Your task to perform on an android device: allow cookies in the chrome app Image 0: 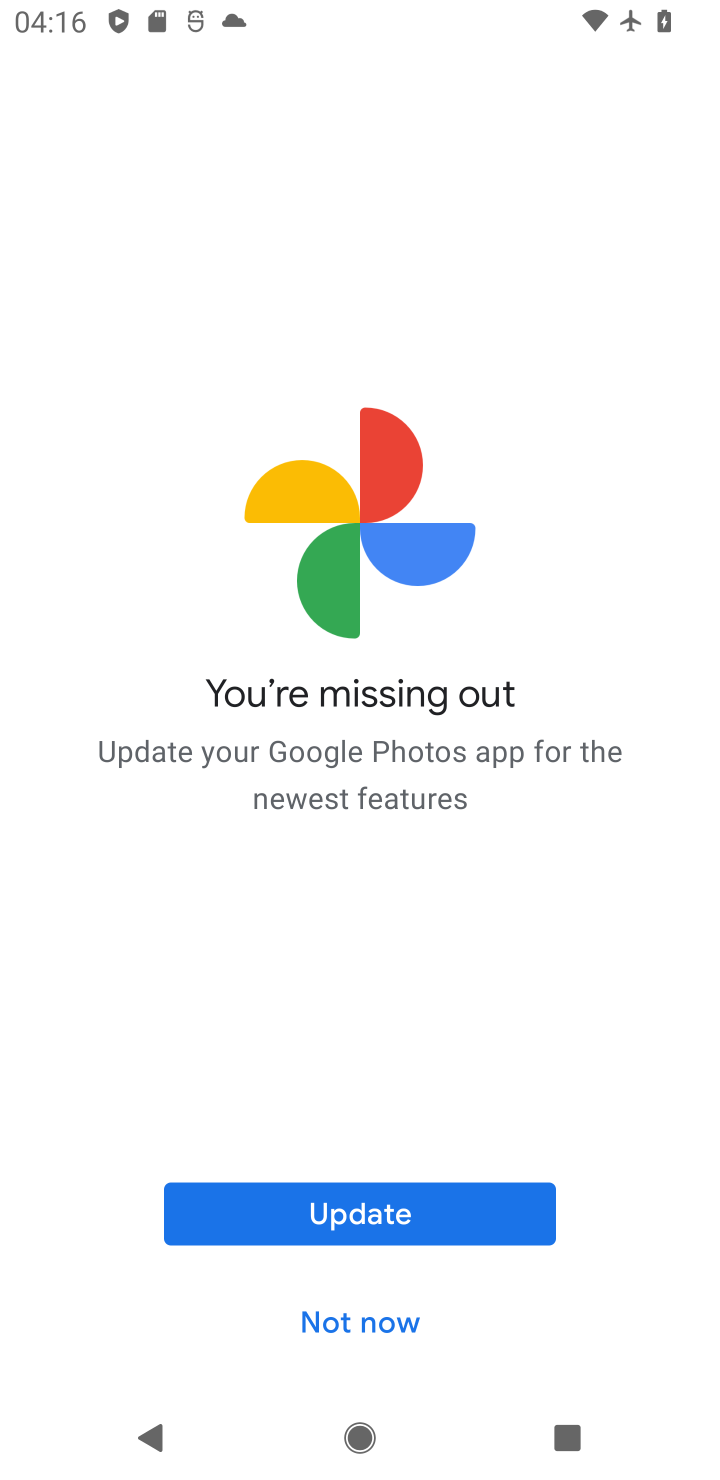
Step 0: press home button
Your task to perform on an android device: allow cookies in the chrome app Image 1: 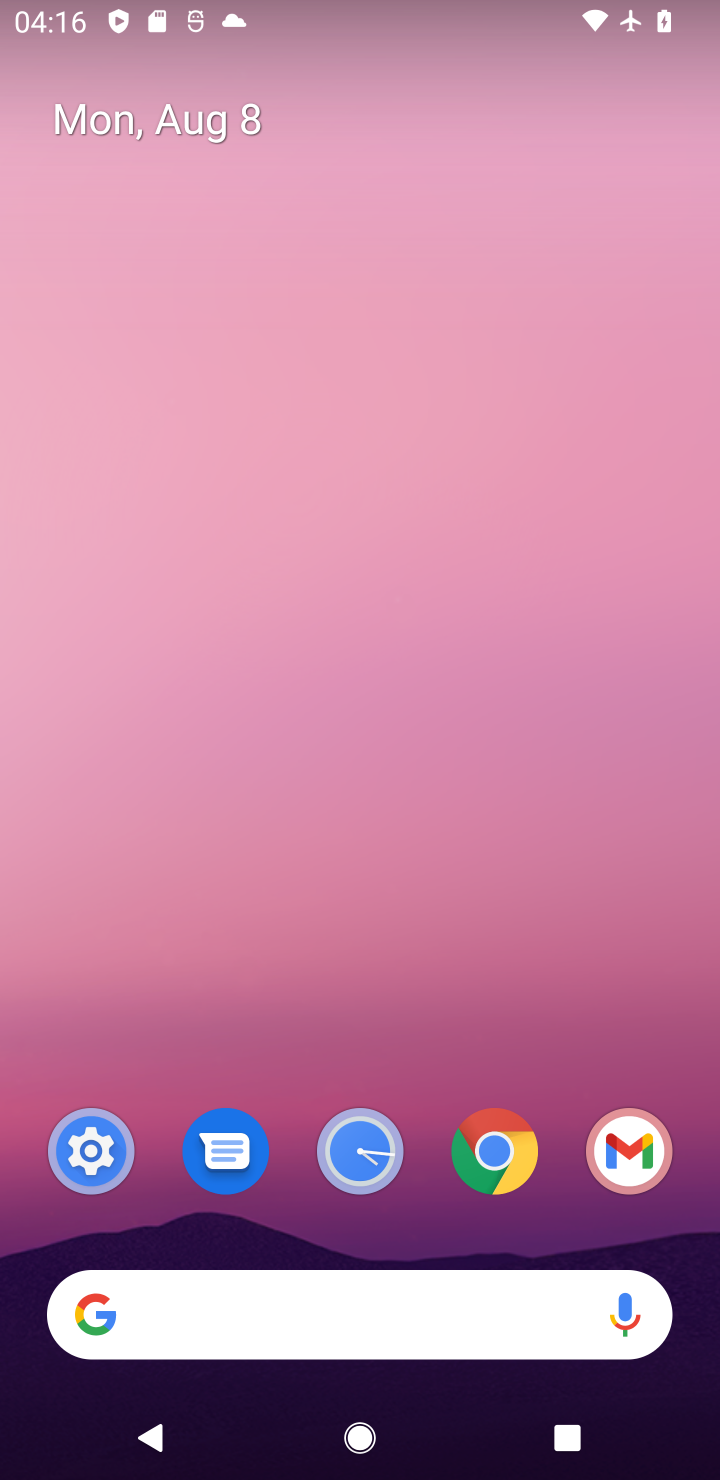
Step 1: click (517, 1166)
Your task to perform on an android device: allow cookies in the chrome app Image 2: 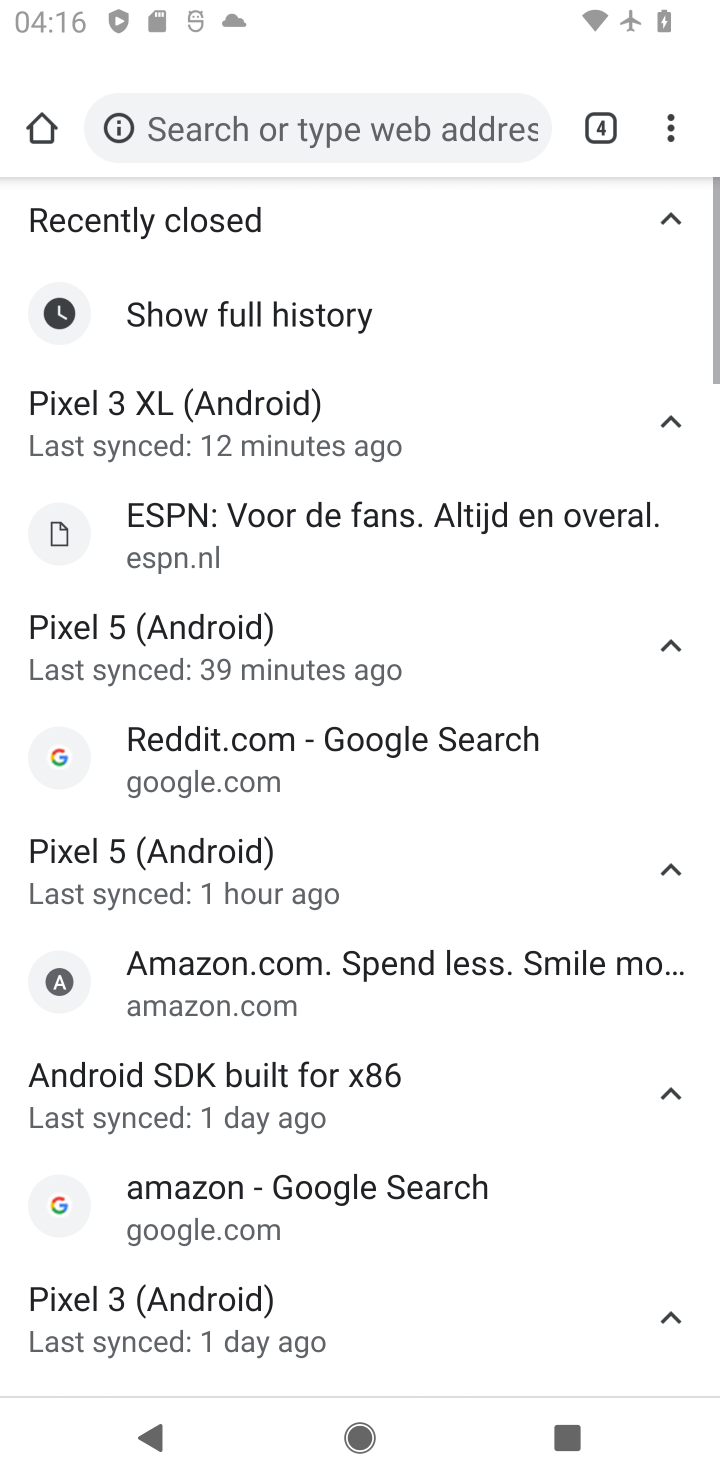
Step 2: click (696, 120)
Your task to perform on an android device: allow cookies in the chrome app Image 3: 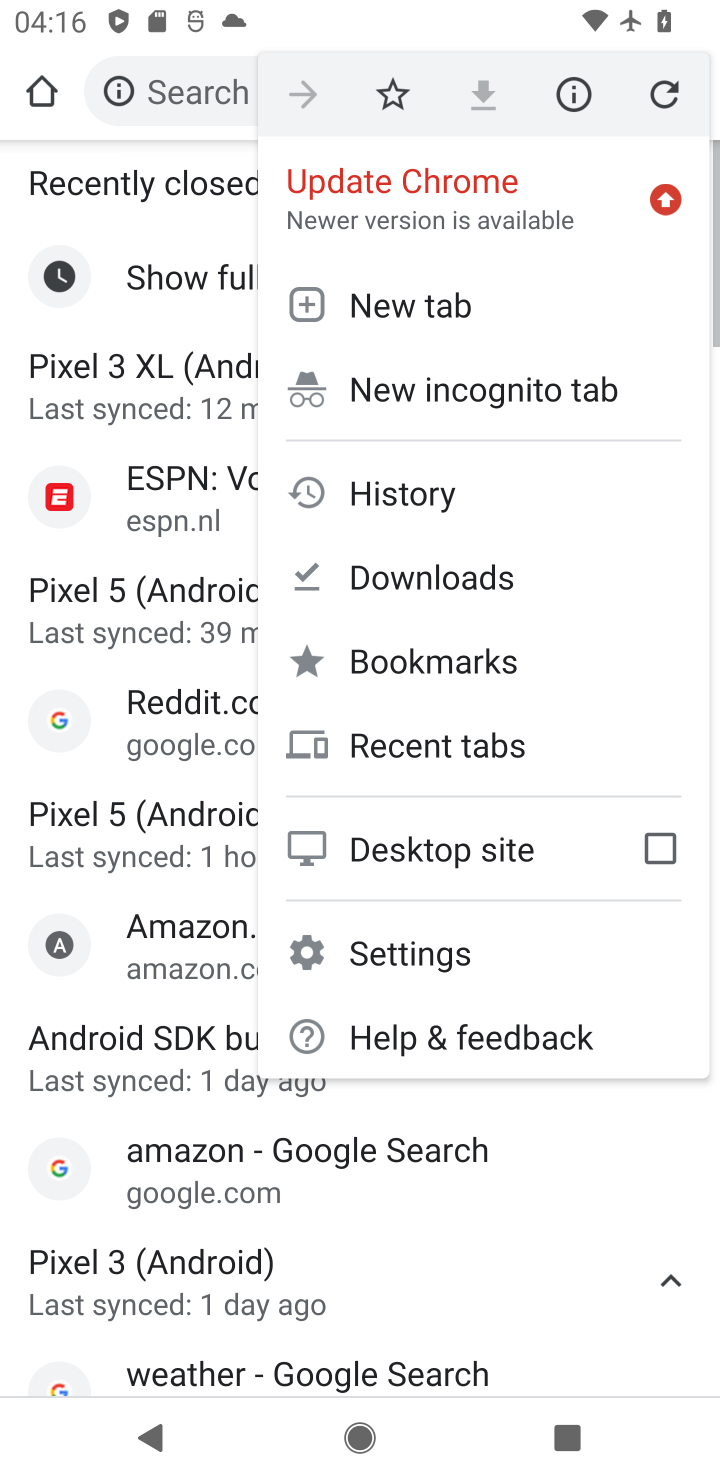
Step 3: click (412, 933)
Your task to perform on an android device: allow cookies in the chrome app Image 4: 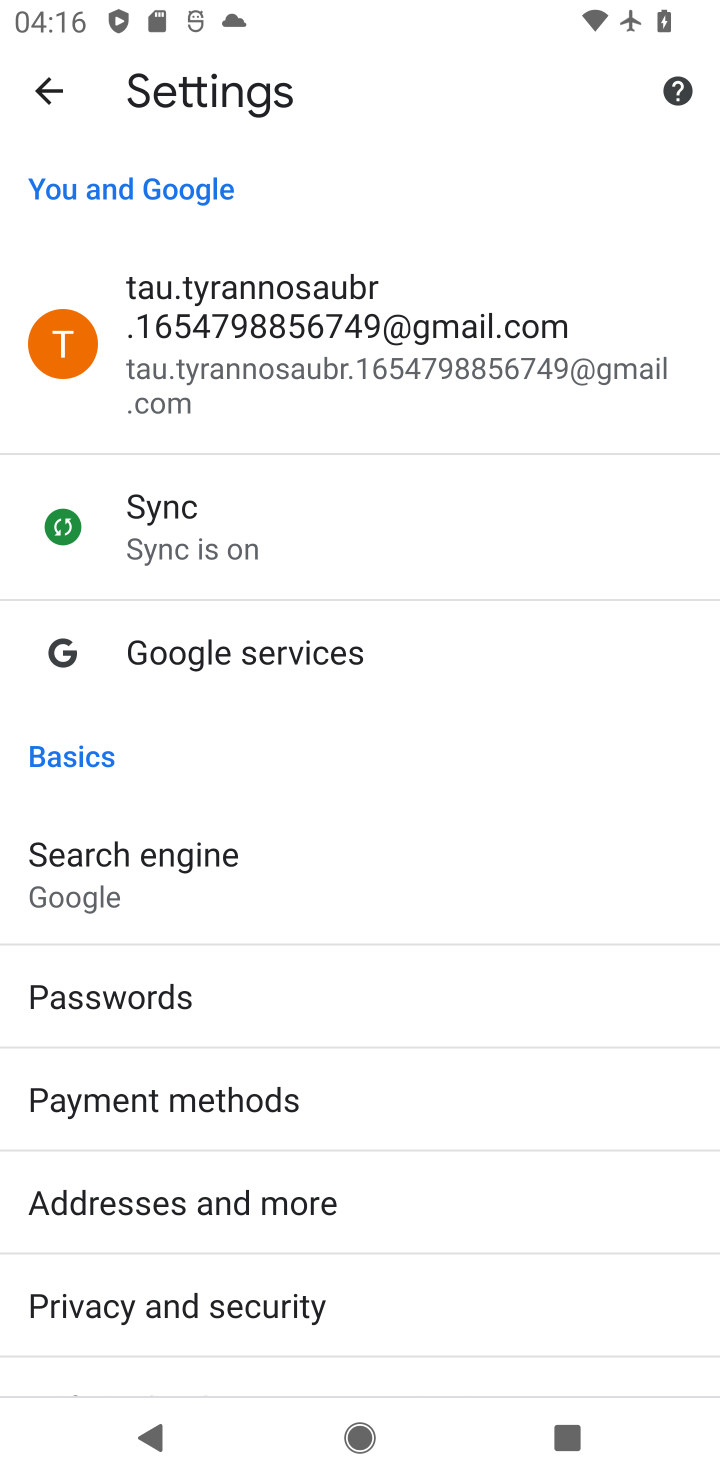
Step 4: drag from (268, 1170) to (268, 484)
Your task to perform on an android device: allow cookies in the chrome app Image 5: 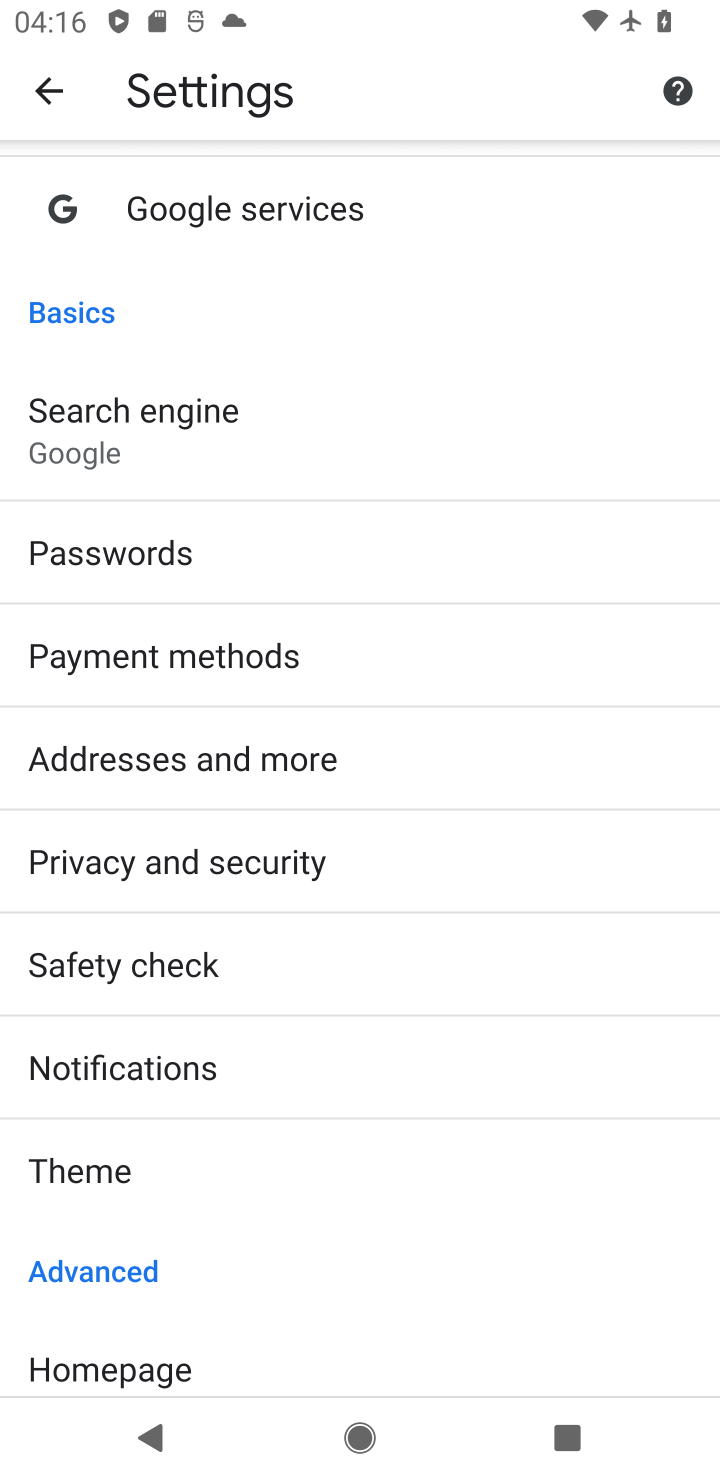
Step 5: drag from (256, 995) to (282, 376)
Your task to perform on an android device: allow cookies in the chrome app Image 6: 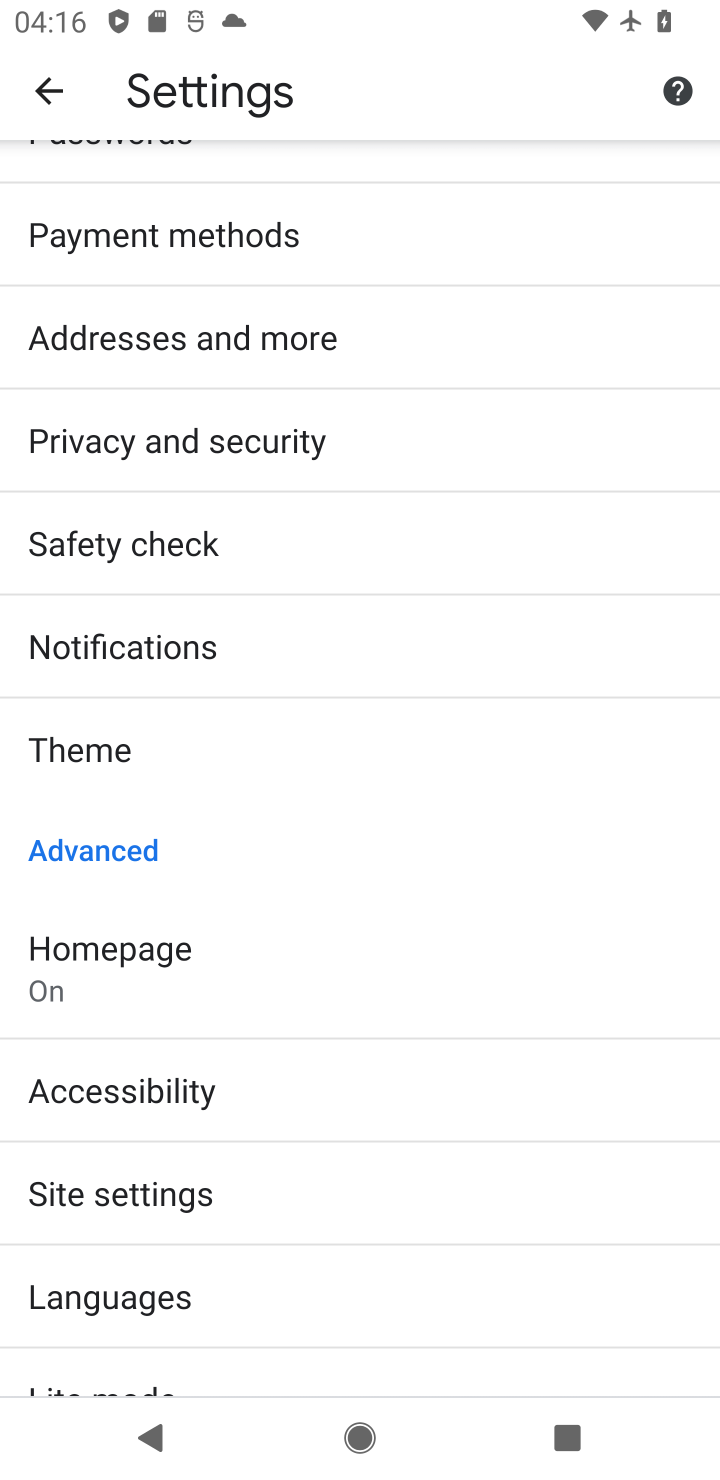
Step 6: click (139, 1201)
Your task to perform on an android device: allow cookies in the chrome app Image 7: 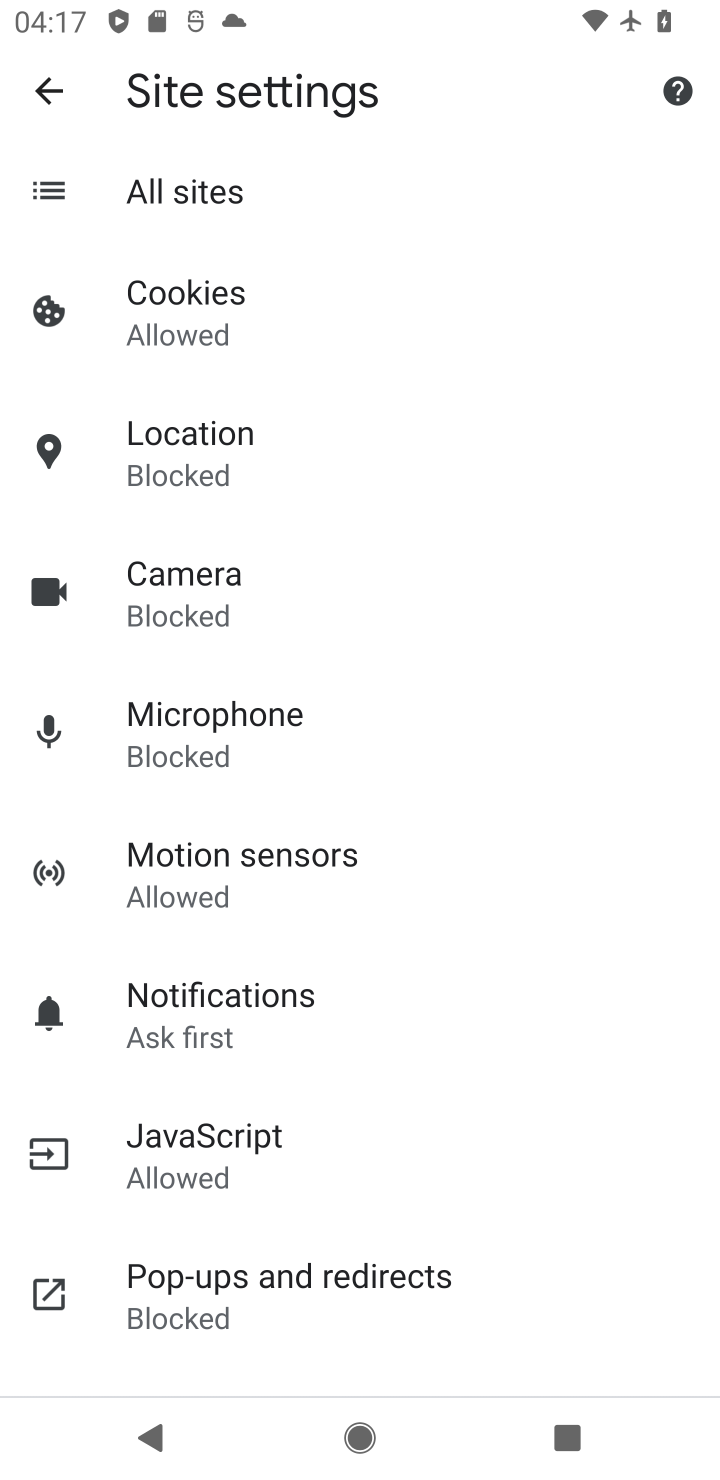
Step 7: click (241, 286)
Your task to perform on an android device: allow cookies in the chrome app Image 8: 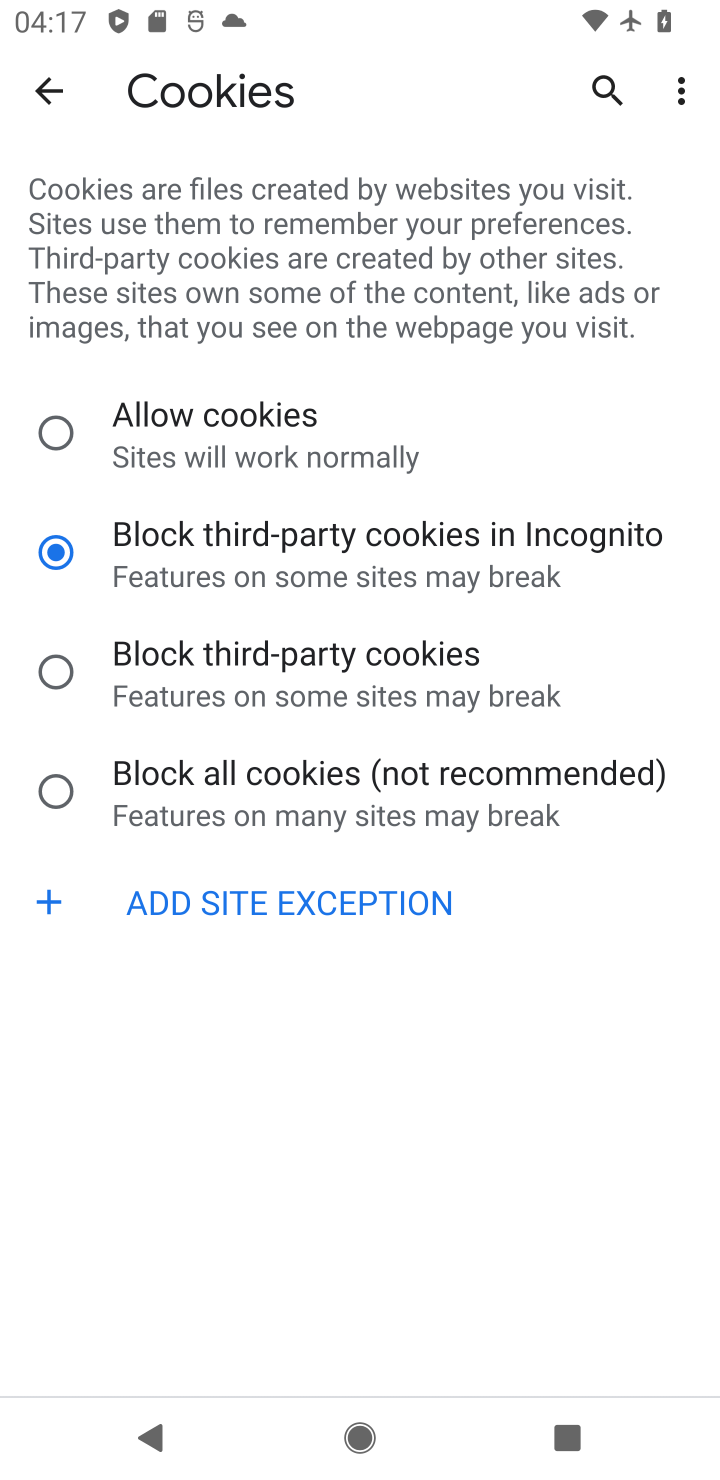
Step 8: click (193, 423)
Your task to perform on an android device: allow cookies in the chrome app Image 9: 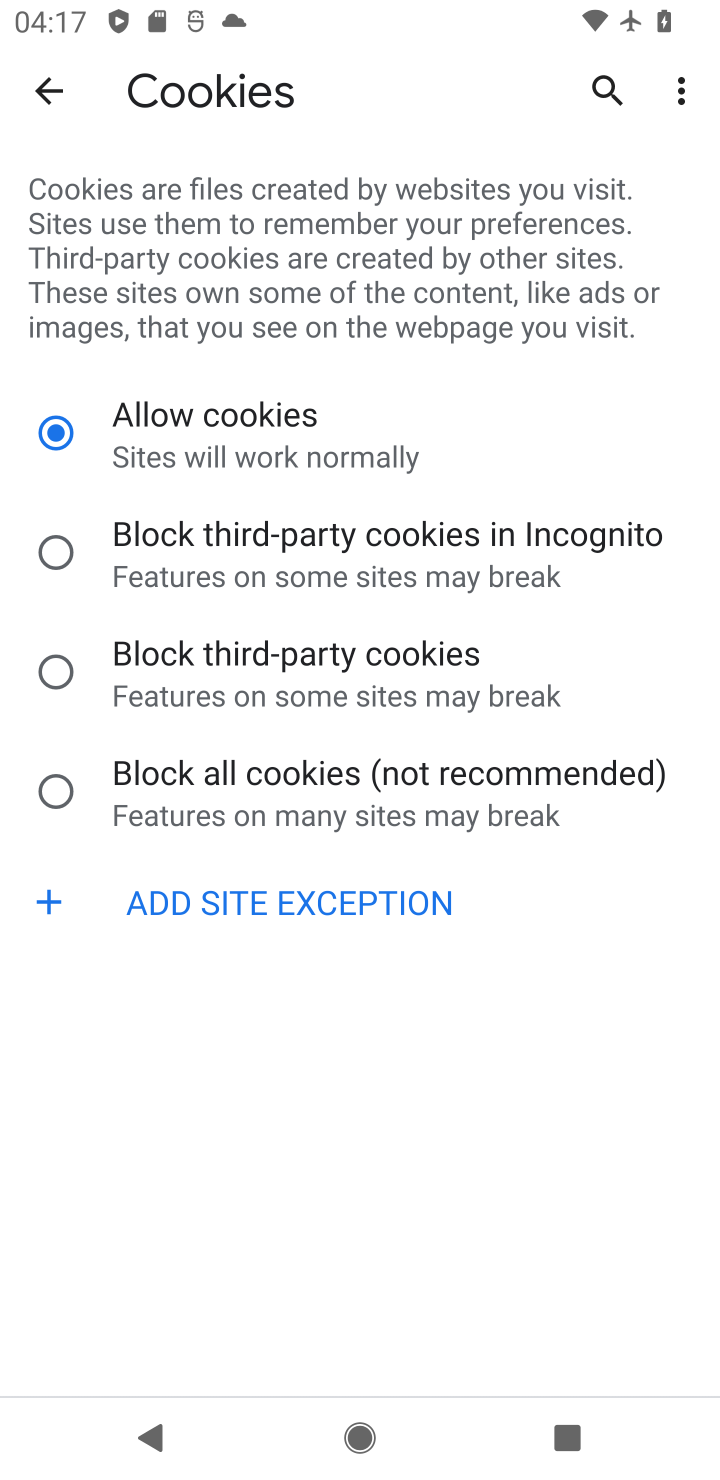
Step 9: task complete